Your task to perform on an android device: Open Google Chrome Image 0: 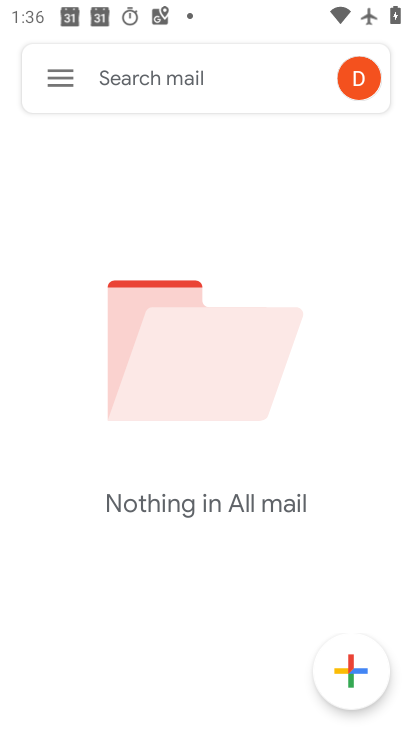
Step 0: press home button
Your task to perform on an android device: Open Google Chrome Image 1: 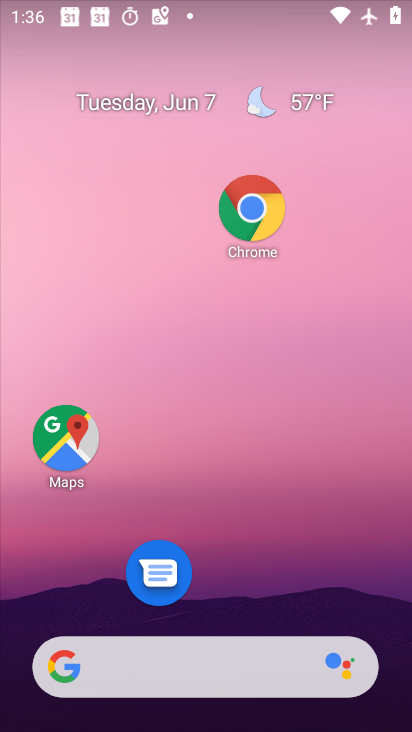
Step 1: click (260, 210)
Your task to perform on an android device: Open Google Chrome Image 2: 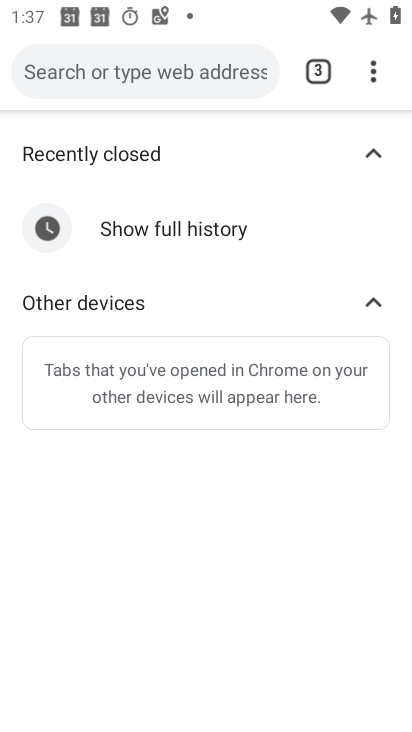
Step 2: task complete